Your task to perform on an android device: Go to network settings Image 0: 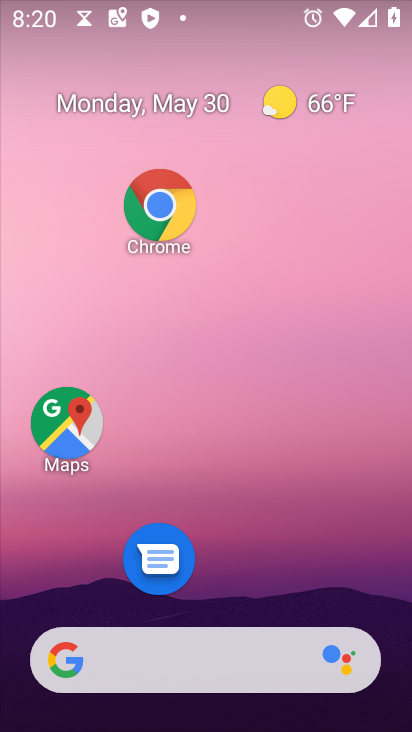
Step 0: drag from (262, 665) to (272, 318)
Your task to perform on an android device: Go to network settings Image 1: 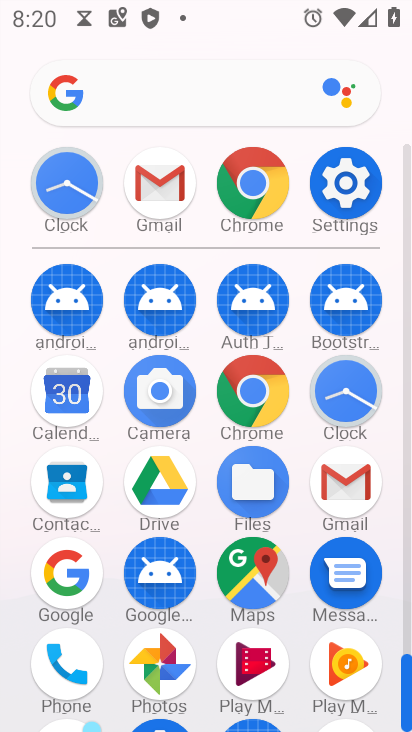
Step 1: click (347, 178)
Your task to perform on an android device: Go to network settings Image 2: 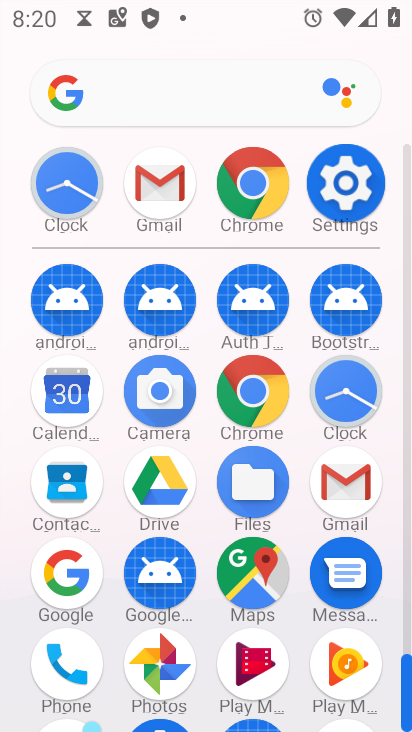
Step 2: click (347, 178)
Your task to perform on an android device: Go to network settings Image 3: 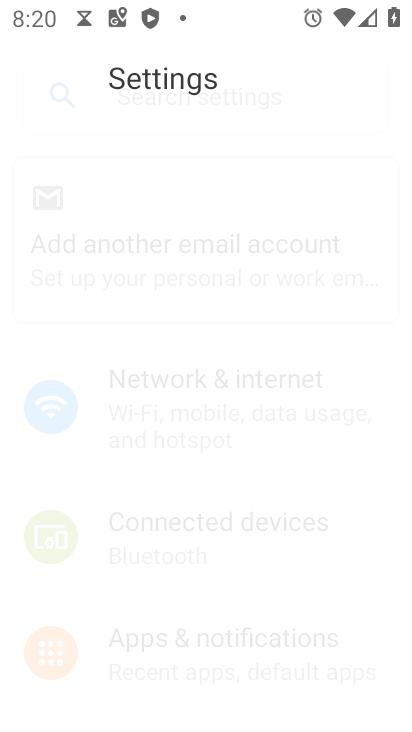
Step 3: click (347, 178)
Your task to perform on an android device: Go to network settings Image 4: 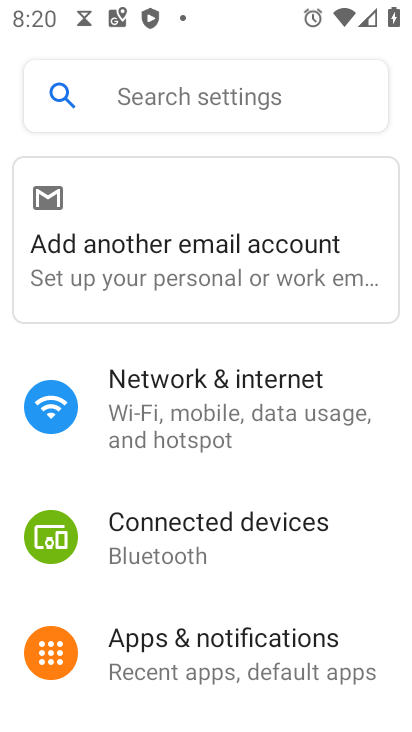
Step 4: click (347, 178)
Your task to perform on an android device: Go to network settings Image 5: 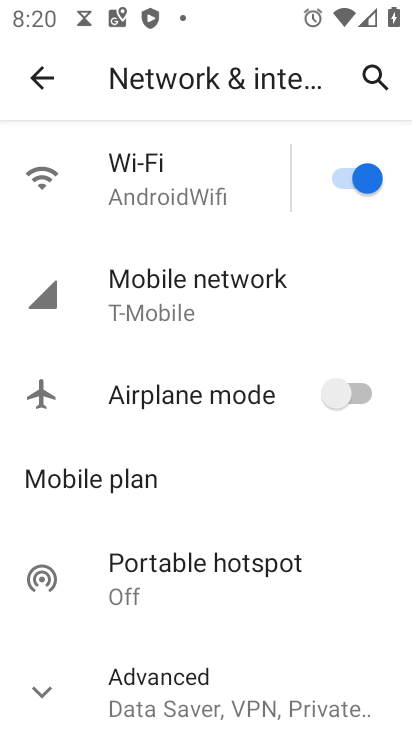
Step 5: task complete